Your task to perform on an android device: Open the calendar and show me this week's events Image 0: 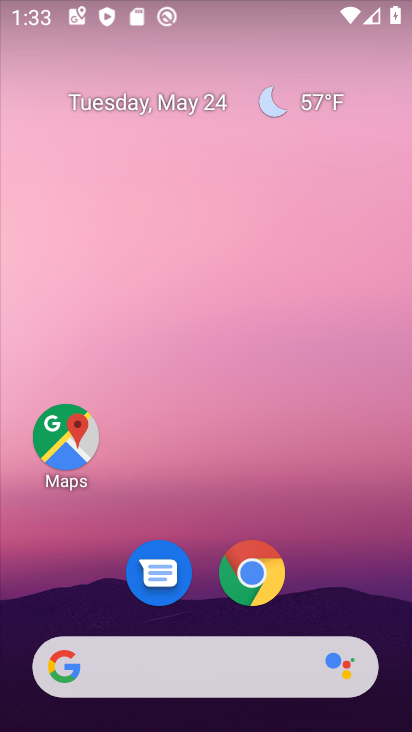
Step 0: drag from (301, 583) to (306, 121)
Your task to perform on an android device: Open the calendar and show me this week's events Image 1: 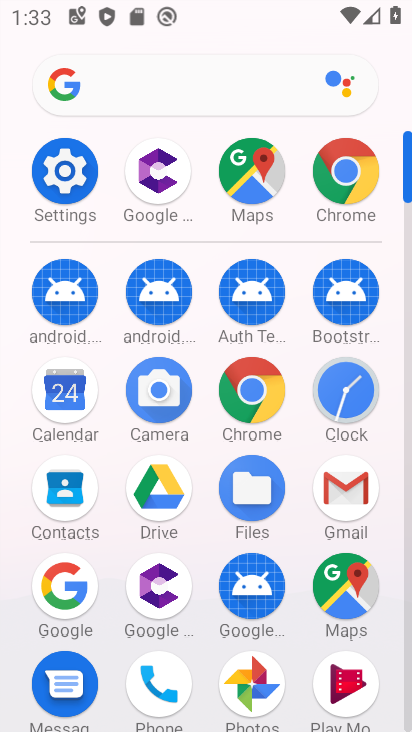
Step 1: click (66, 398)
Your task to perform on an android device: Open the calendar and show me this week's events Image 2: 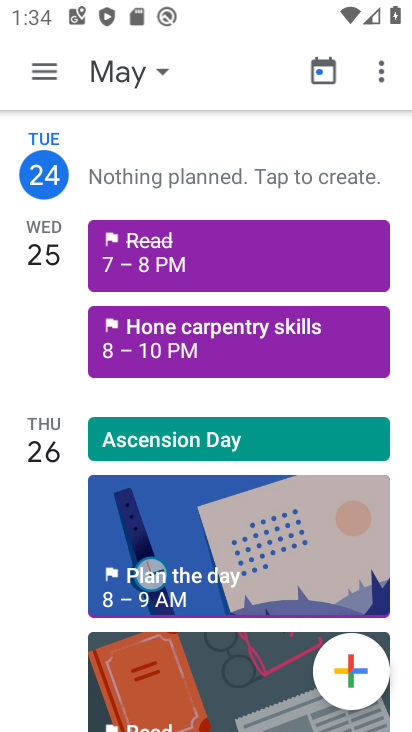
Step 2: click (109, 56)
Your task to perform on an android device: Open the calendar and show me this week's events Image 3: 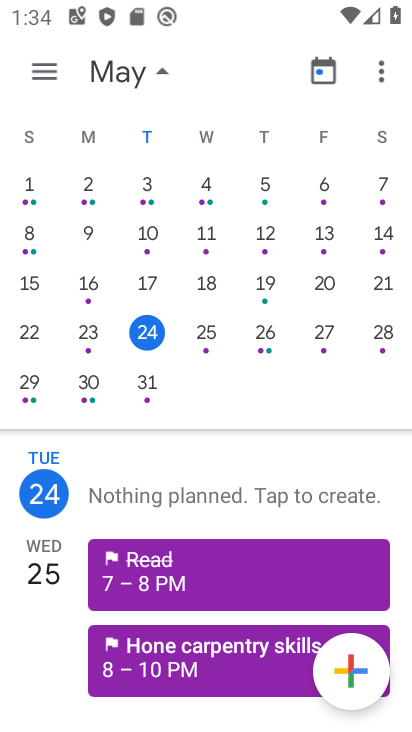
Step 3: task complete